Your task to perform on an android device: snooze an email in the gmail app Image 0: 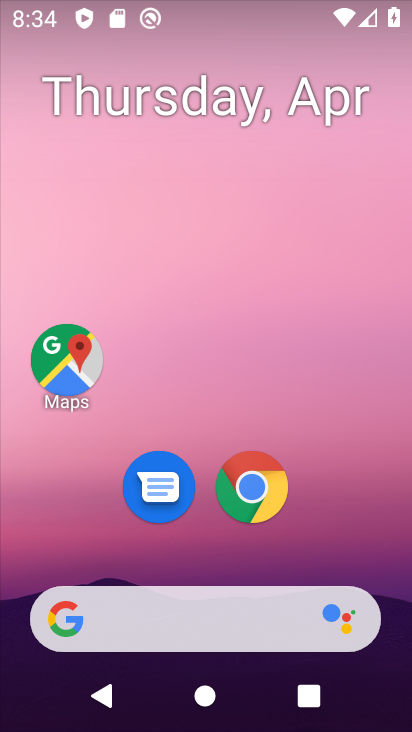
Step 0: drag from (199, 467) to (209, 147)
Your task to perform on an android device: snooze an email in the gmail app Image 1: 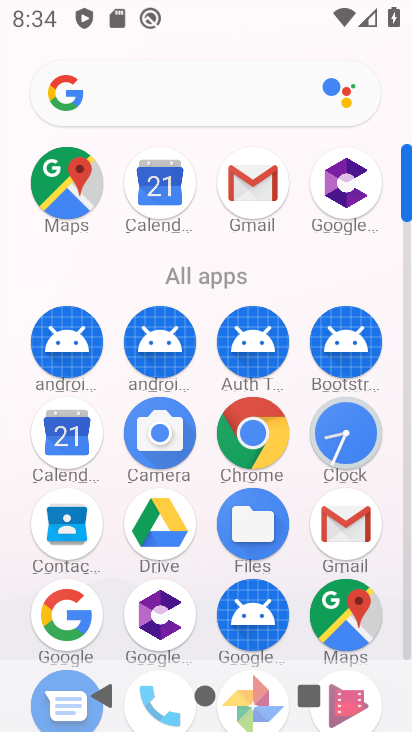
Step 1: click (351, 518)
Your task to perform on an android device: snooze an email in the gmail app Image 2: 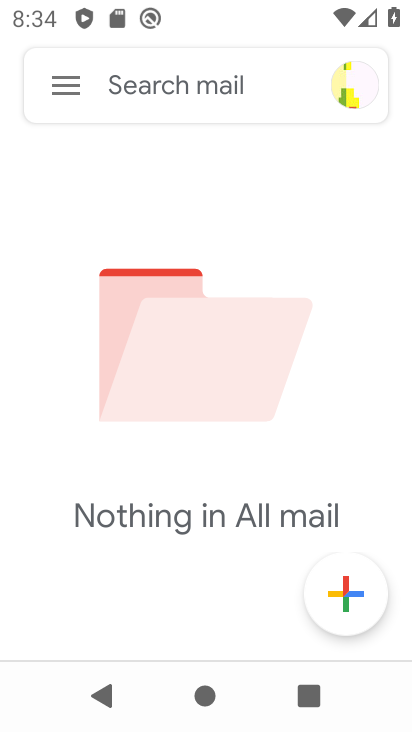
Step 2: click (72, 77)
Your task to perform on an android device: snooze an email in the gmail app Image 3: 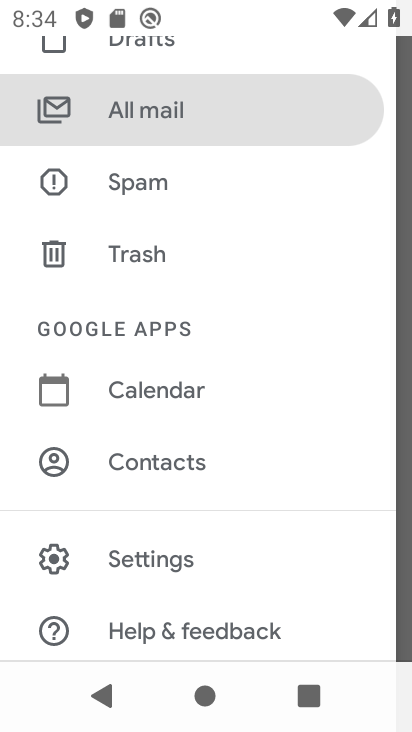
Step 3: click (161, 122)
Your task to perform on an android device: snooze an email in the gmail app Image 4: 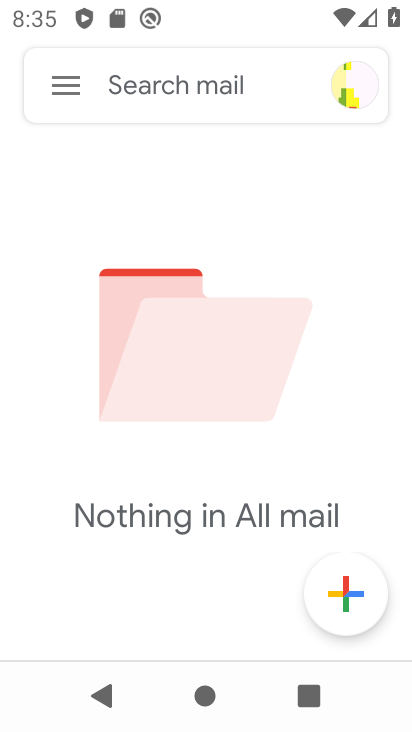
Step 4: task complete